Your task to perform on an android device: Turn on the flashlight Image 0: 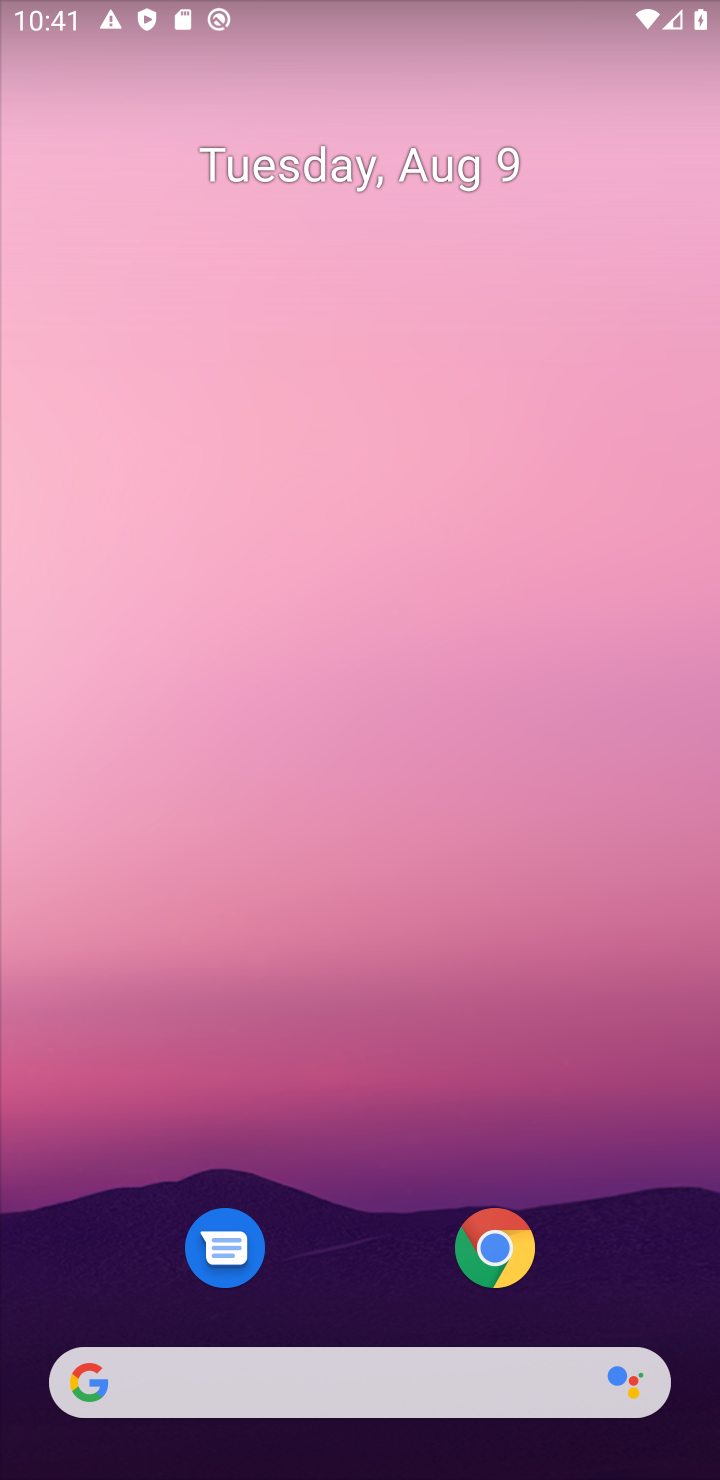
Step 0: click (437, 866)
Your task to perform on an android device: Turn on the flashlight Image 1: 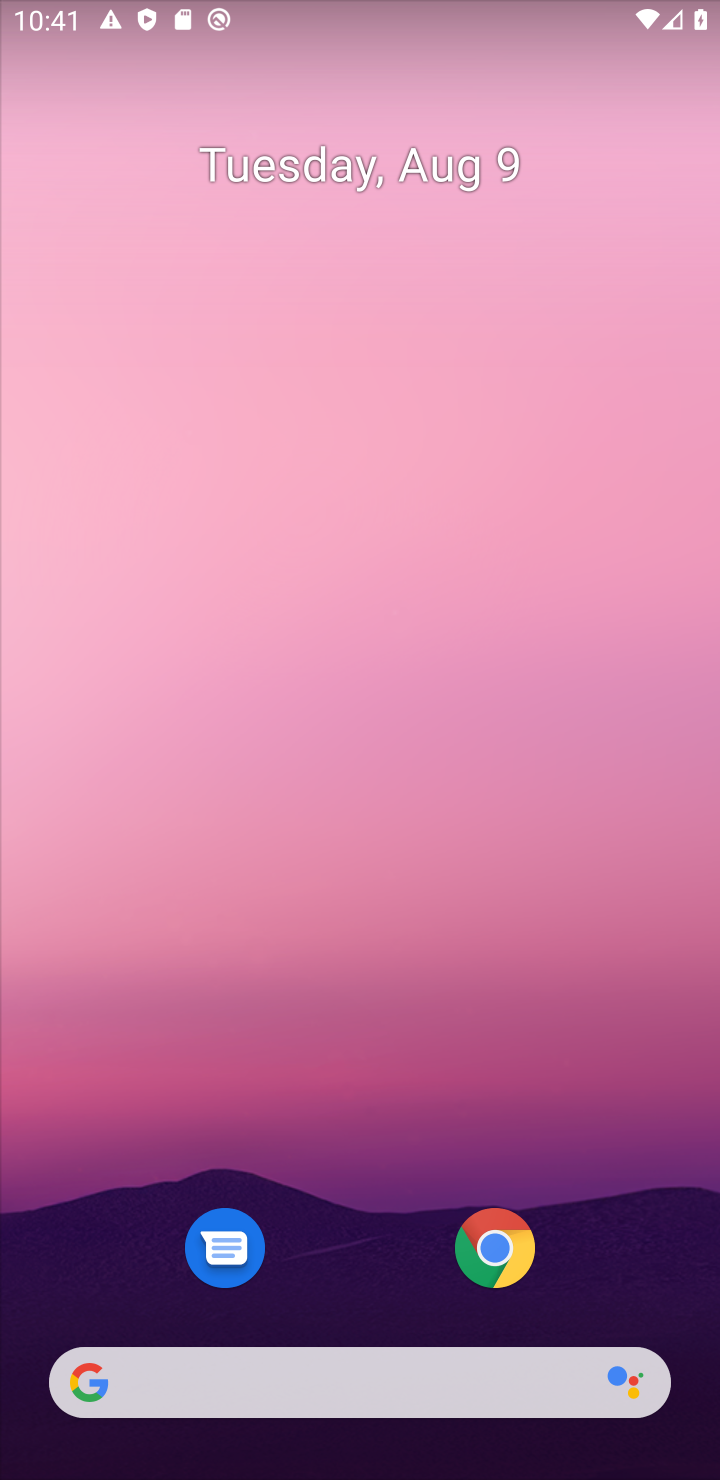
Step 1: task complete